Your task to perform on an android device: move an email to a new category in the gmail app Image 0: 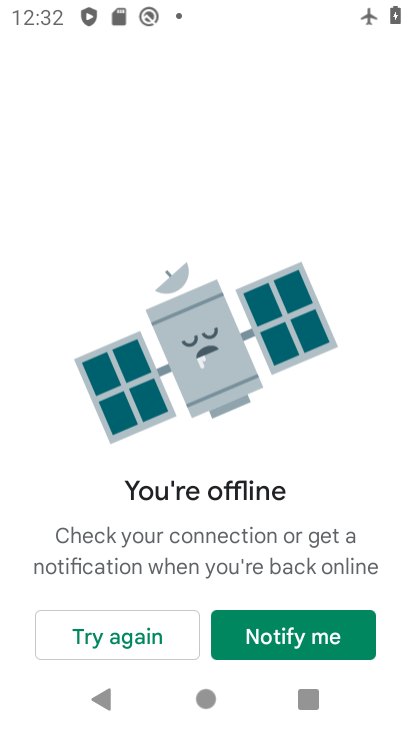
Step 0: press home button
Your task to perform on an android device: move an email to a new category in the gmail app Image 1: 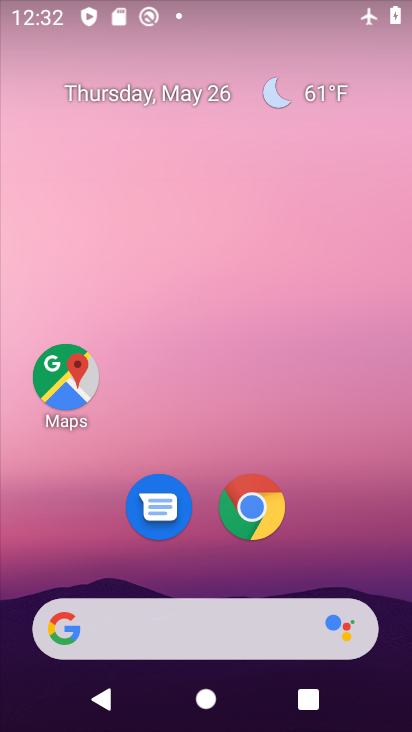
Step 1: drag from (340, 562) to (260, 101)
Your task to perform on an android device: move an email to a new category in the gmail app Image 2: 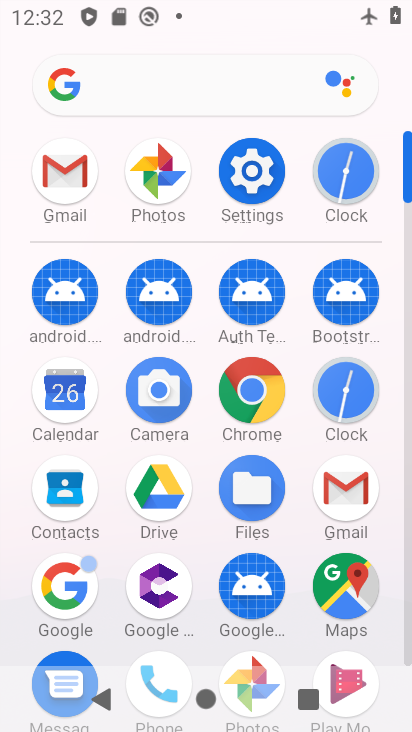
Step 2: click (348, 480)
Your task to perform on an android device: move an email to a new category in the gmail app Image 3: 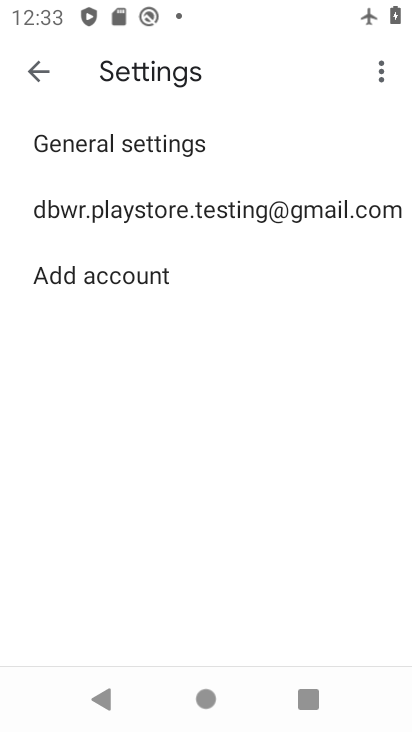
Step 3: click (42, 78)
Your task to perform on an android device: move an email to a new category in the gmail app Image 4: 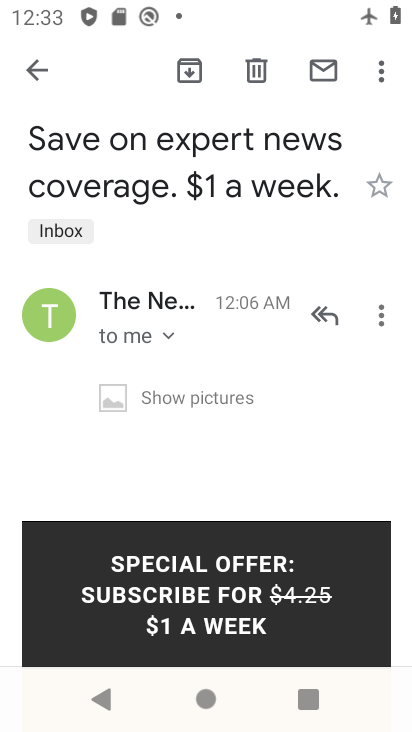
Step 4: click (50, 79)
Your task to perform on an android device: move an email to a new category in the gmail app Image 5: 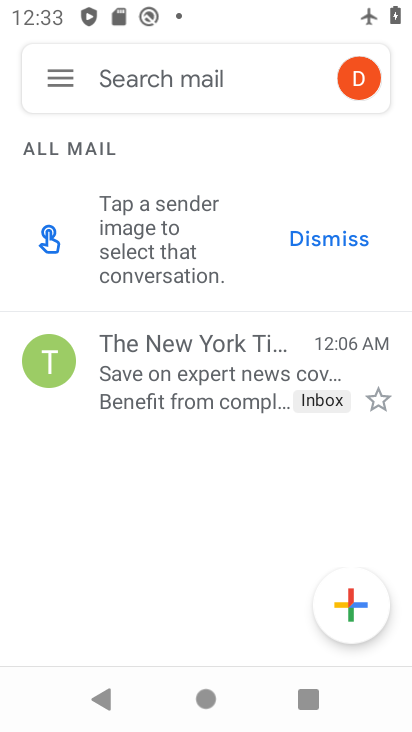
Step 5: click (74, 84)
Your task to perform on an android device: move an email to a new category in the gmail app Image 6: 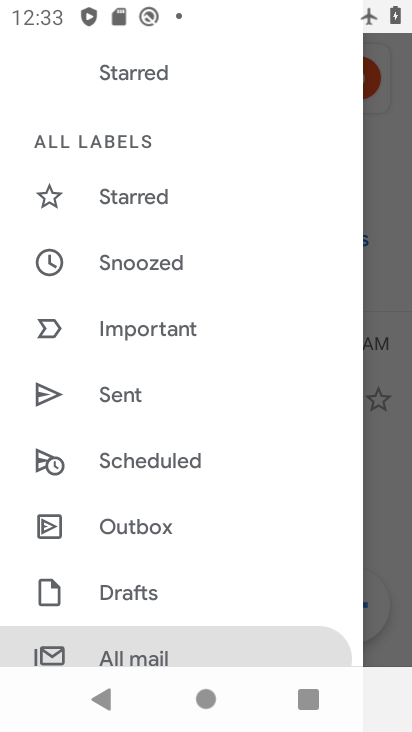
Step 6: drag from (182, 548) to (190, 291)
Your task to perform on an android device: move an email to a new category in the gmail app Image 7: 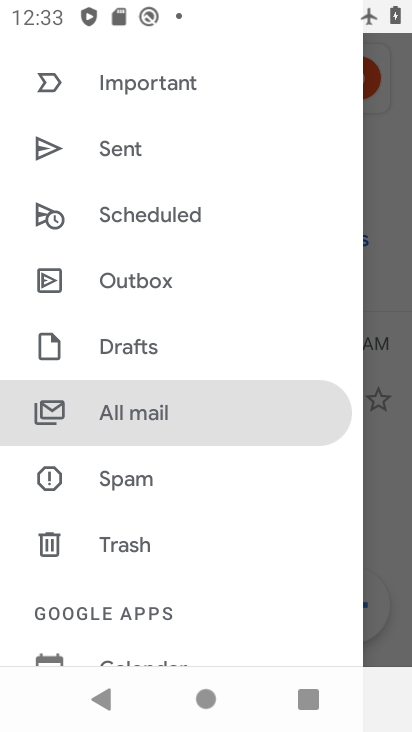
Step 7: drag from (170, 552) to (191, 308)
Your task to perform on an android device: move an email to a new category in the gmail app Image 8: 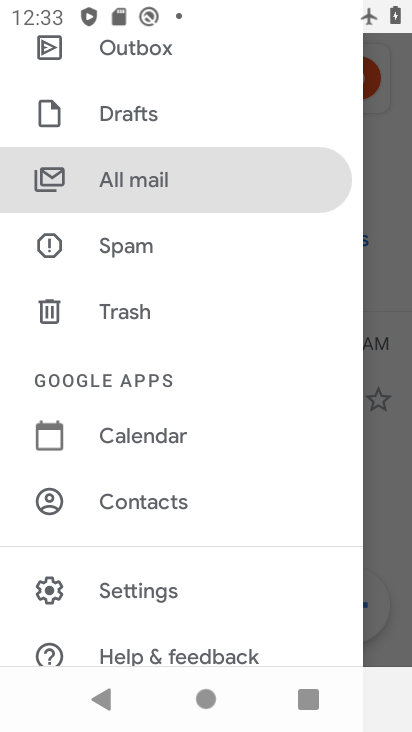
Step 8: click (223, 165)
Your task to perform on an android device: move an email to a new category in the gmail app Image 9: 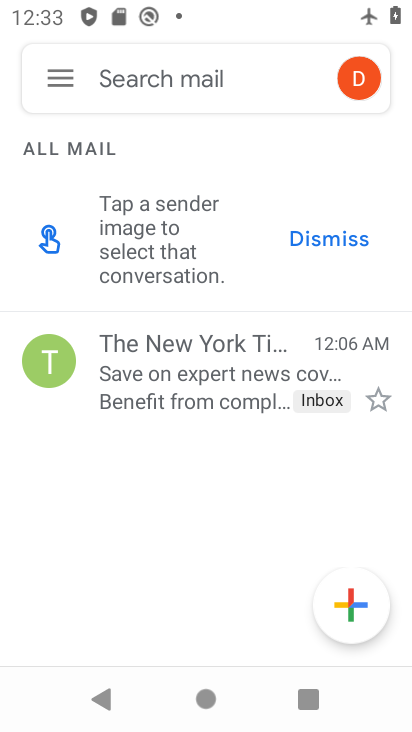
Step 9: click (229, 370)
Your task to perform on an android device: move an email to a new category in the gmail app Image 10: 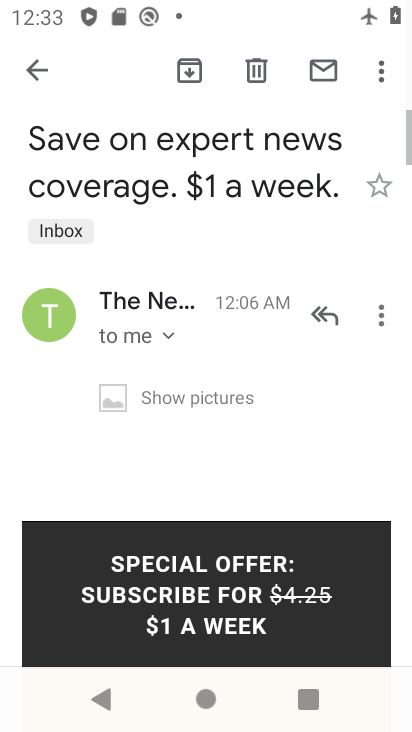
Step 10: click (375, 80)
Your task to perform on an android device: move an email to a new category in the gmail app Image 11: 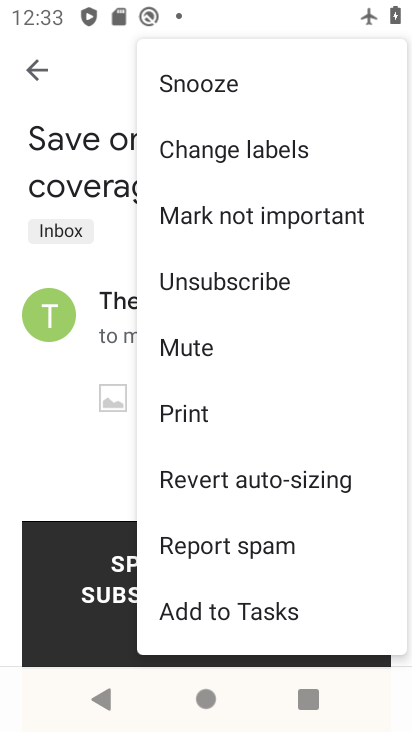
Step 11: click (297, 169)
Your task to perform on an android device: move an email to a new category in the gmail app Image 12: 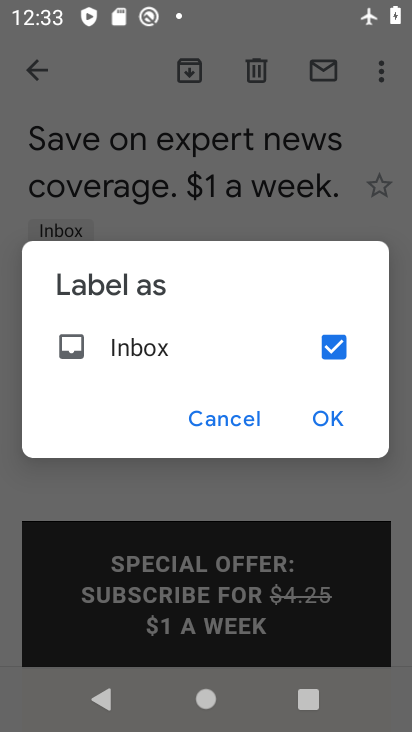
Step 12: click (337, 419)
Your task to perform on an android device: move an email to a new category in the gmail app Image 13: 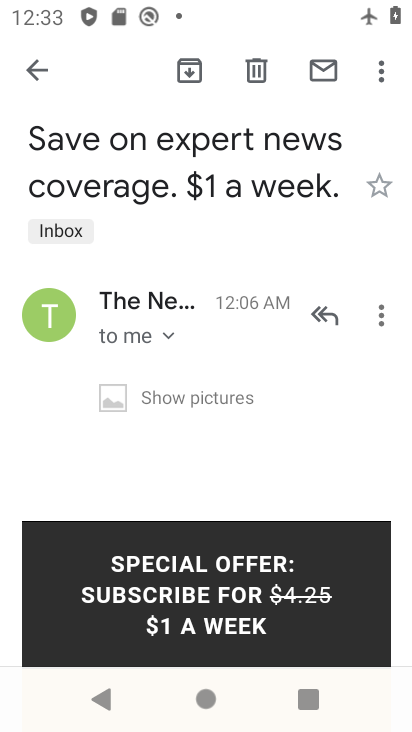
Step 13: task complete